Your task to perform on an android device: Is it going to rain tomorrow? Image 0: 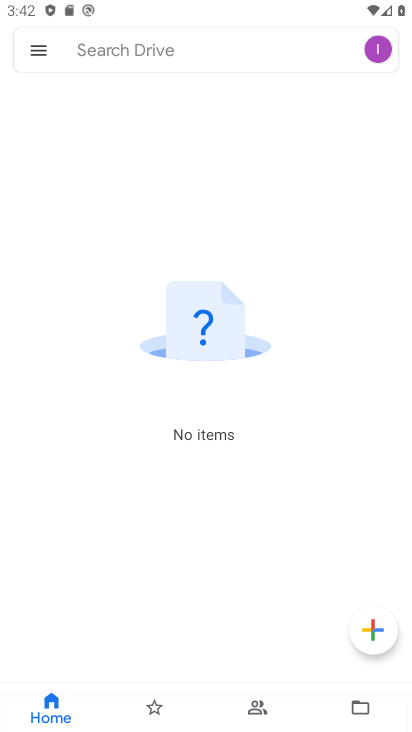
Step 0: press home button
Your task to perform on an android device: Is it going to rain tomorrow? Image 1: 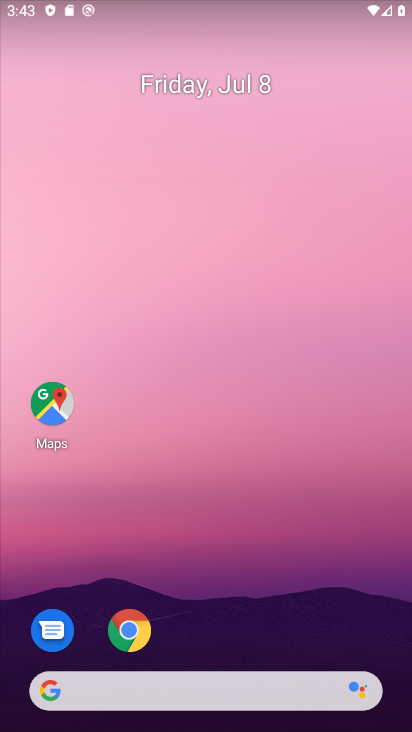
Step 1: click (113, 707)
Your task to perform on an android device: Is it going to rain tomorrow? Image 2: 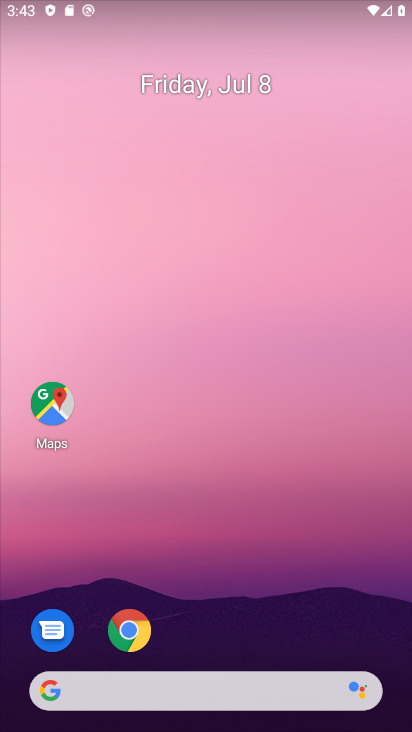
Step 2: click (109, 699)
Your task to perform on an android device: Is it going to rain tomorrow? Image 3: 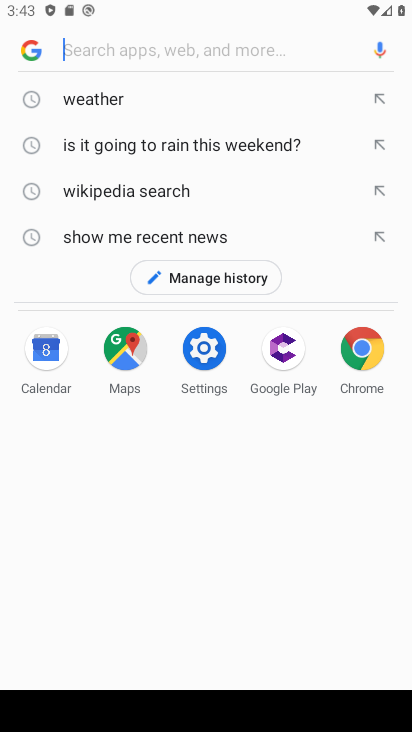
Step 3: click (70, 38)
Your task to perform on an android device: Is it going to rain tomorrow? Image 4: 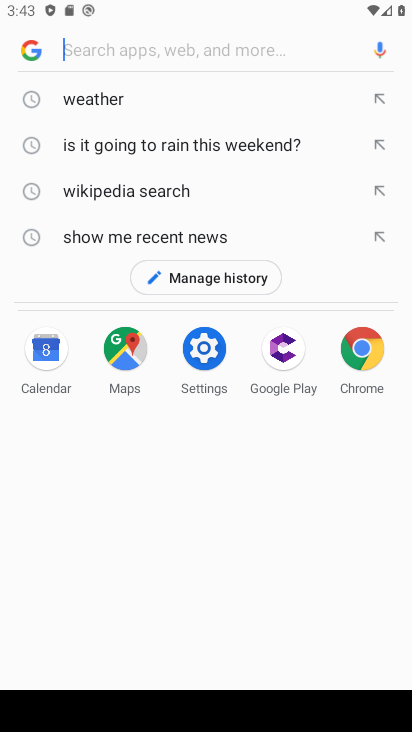
Step 4: type "Is it going to rain tomorrow?"
Your task to perform on an android device: Is it going to rain tomorrow? Image 5: 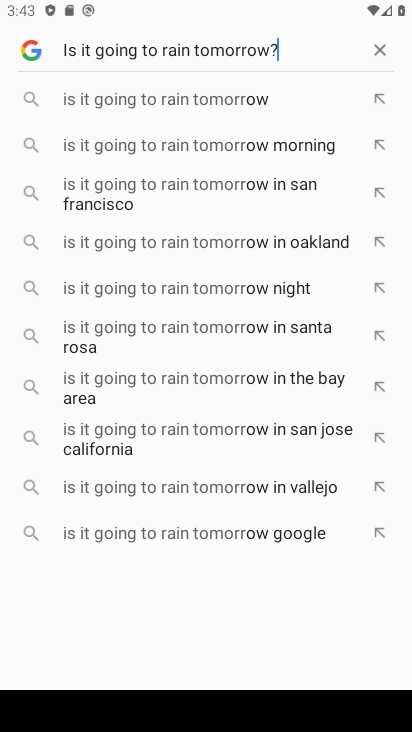
Step 5: type ""
Your task to perform on an android device: Is it going to rain tomorrow? Image 6: 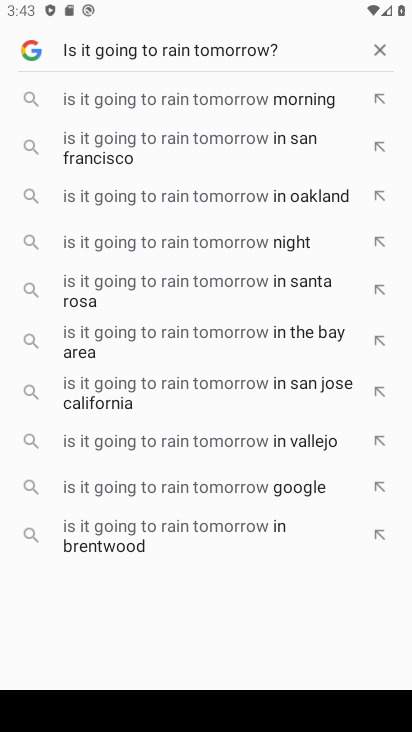
Step 6: type ""
Your task to perform on an android device: Is it going to rain tomorrow? Image 7: 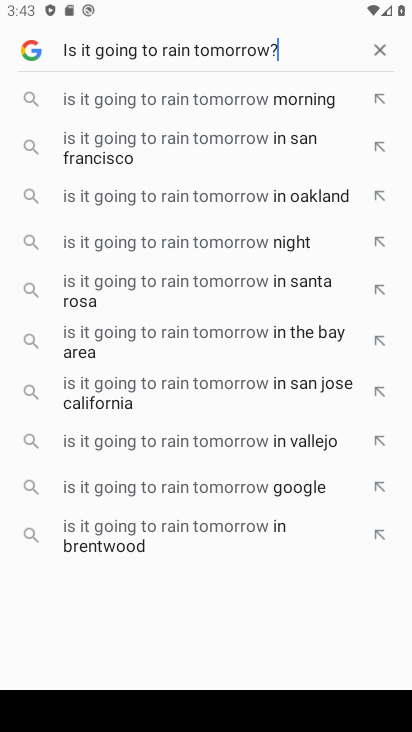
Step 7: type ""
Your task to perform on an android device: Is it going to rain tomorrow? Image 8: 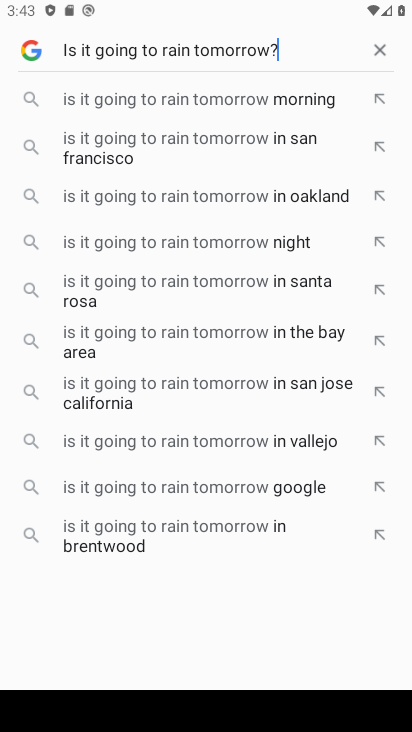
Step 8: task complete